Your task to perform on an android device: Open the stopwatch Image 0: 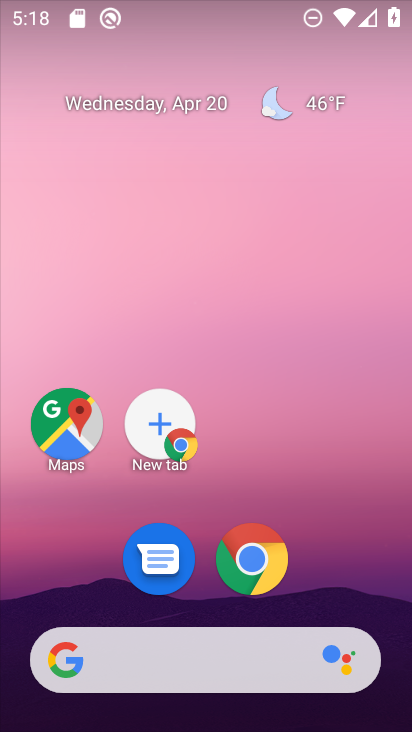
Step 0: drag from (321, 448) to (341, 49)
Your task to perform on an android device: Open the stopwatch Image 1: 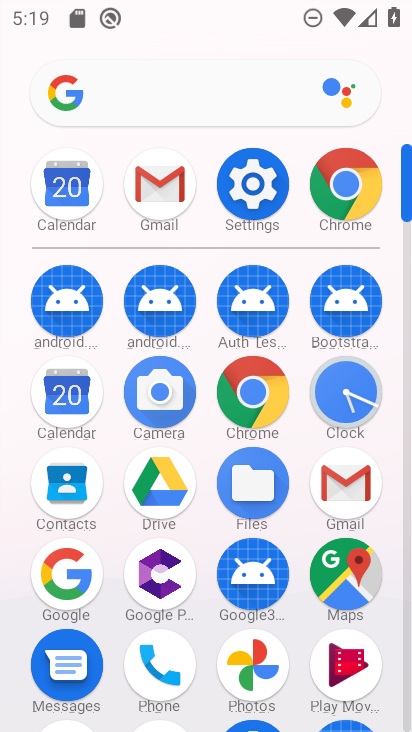
Step 1: click (237, 212)
Your task to perform on an android device: Open the stopwatch Image 2: 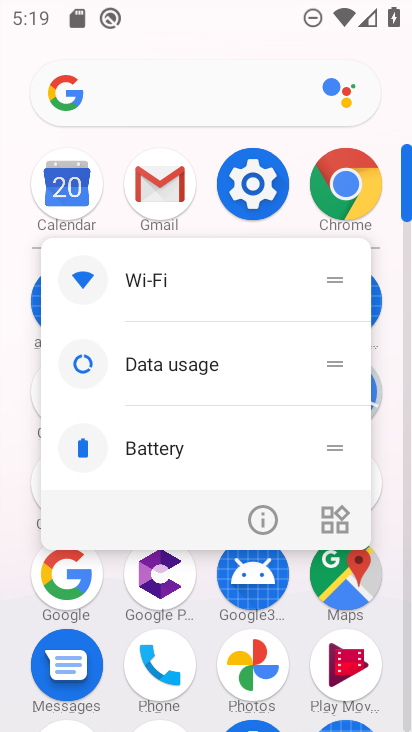
Step 2: click (244, 198)
Your task to perform on an android device: Open the stopwatch Image 3: 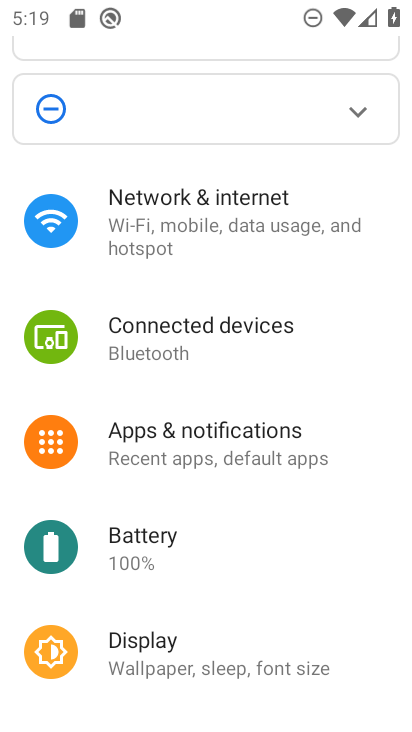
Step 3: drag from (213, 616) to (266, 257)
Your task to perform on an android device: Open the stopwatch Image 4: 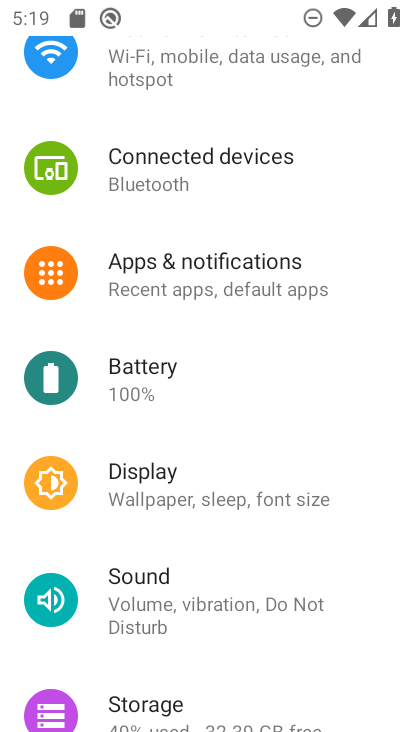
Step 4: drag from (212, 600) to (208, 647)
Your task to perform on an android device: Open the stopwatch Image 5: 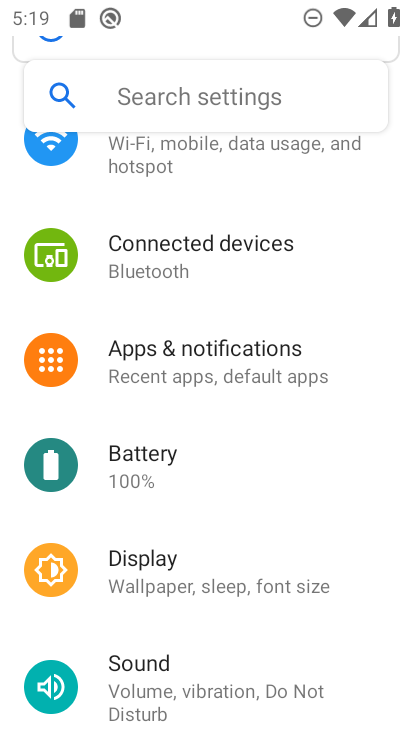
Step 5: drag from (232, 339) to (203, 579)
Your task to perform on an android device: Open the stopwatch Image 6: 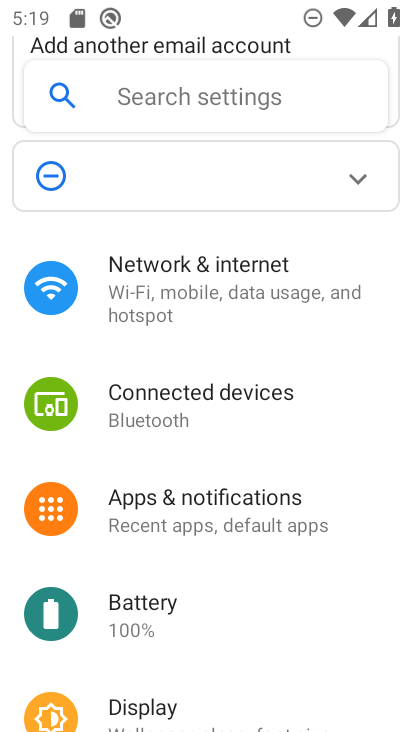
Step 6: press home button
Your task to perform on an android device: Open the stopwatch Image 7: 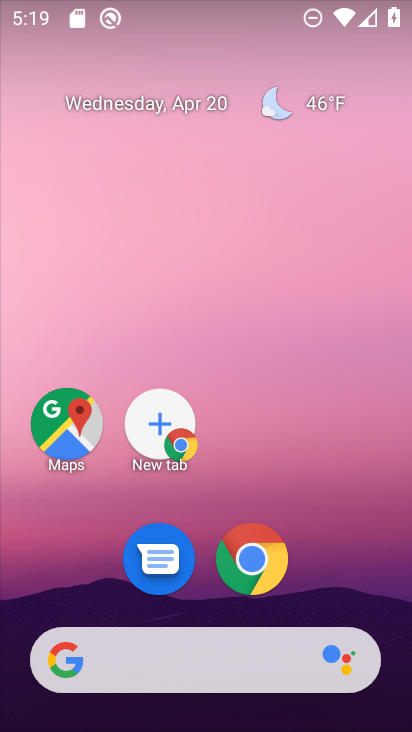
Step 7: drag from (339, 457) to (333, 154)
Your task to perform on an android device: Open the stopwatch Image 8: 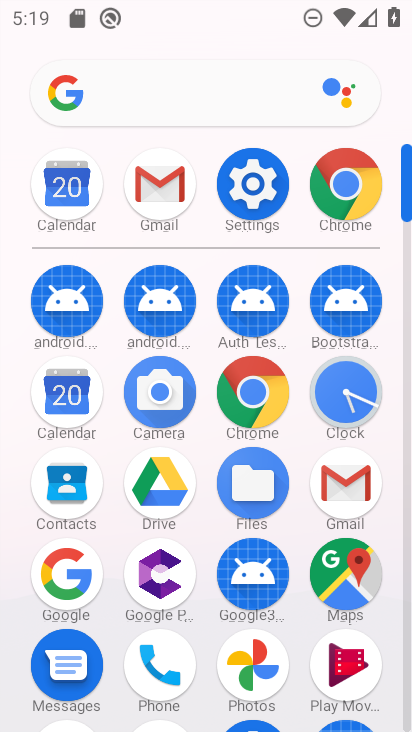
Step 8: click (338, 416)
Your task to perform on an android device: Open the stopwatch Image 9: 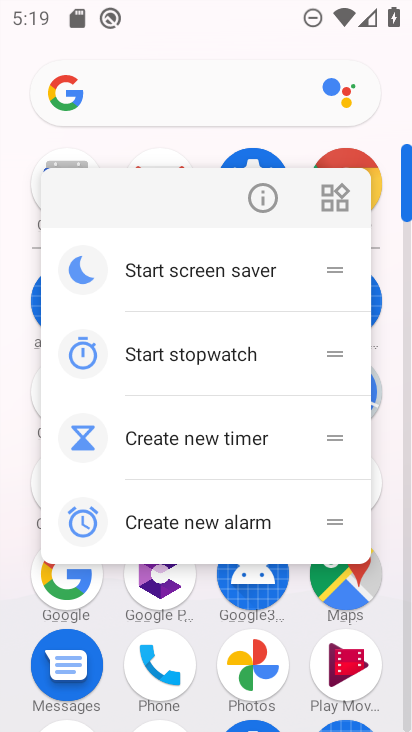
Step 9: click (233, 369)
Your task to perform on an android device: Open the stopwatch Image 10: 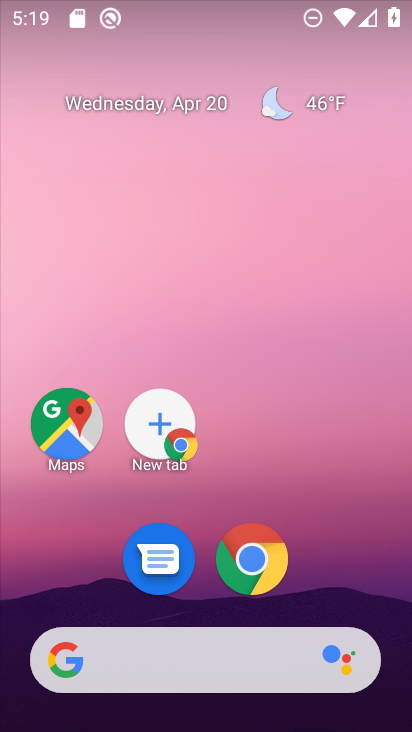
Step 10: drag from (345, 490) to (341, 138)
Your task to perform on an android device: Open the stopwatch Image 11: 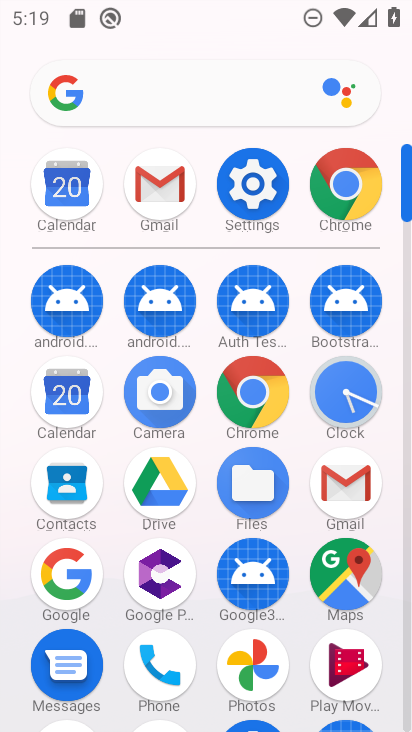
Step 11: click (346, 391)
Your task to perform on an android device: Open the stopwatch Image 12: 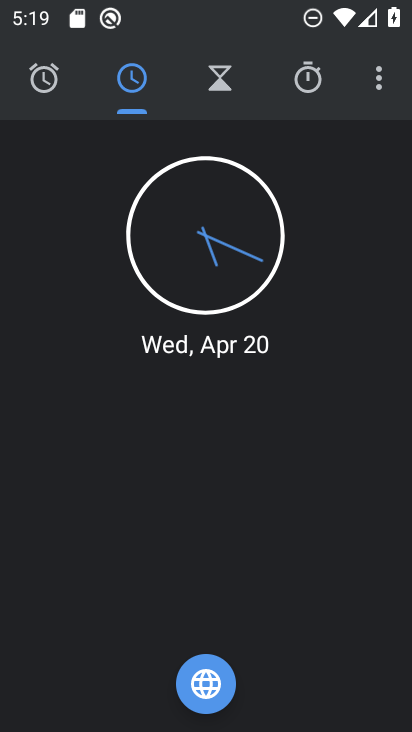
Step 12: click (300, 73)
Your task to perform on an android device: Open the stopwatch Image 13: 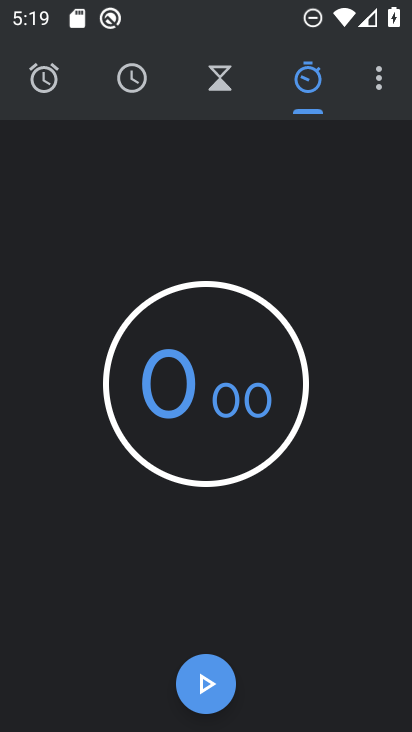
Step 13: task complete